Your task to perform on an android device: check the backup settings in the google photos Image 0: 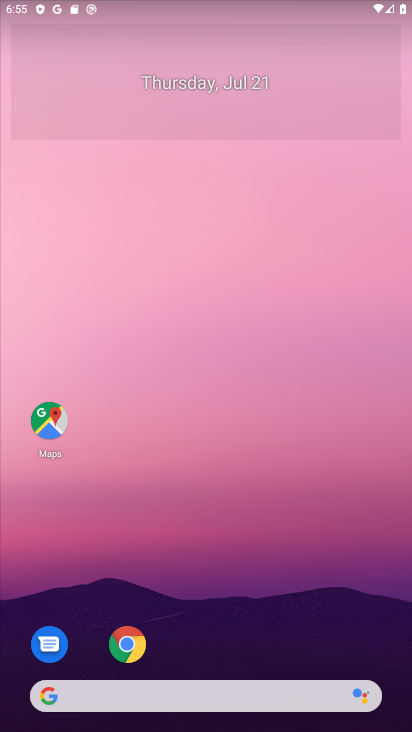
Step 0: drag from (272, 381) to (281, 167)
Your task to perform on an android device: check the backup settings in the google photos Image 1: 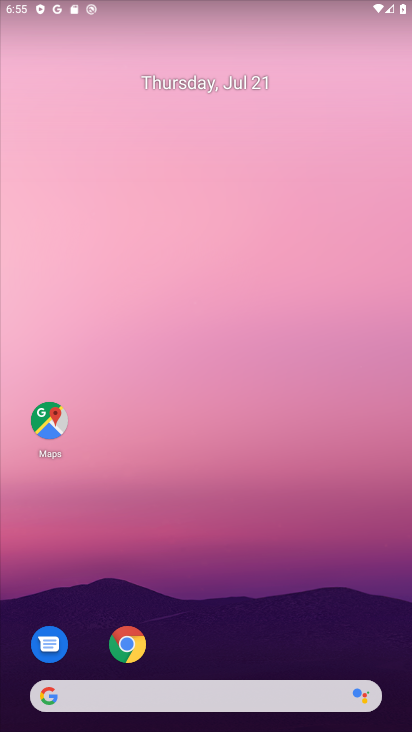
Step 1: drag from (259, 577) to (252, 272)
Your task to perform on an android device: check the backup settings in the google photos Image 2: 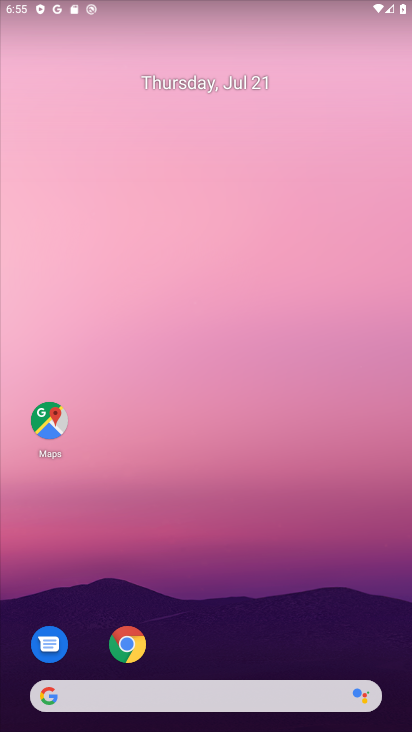
Step 2: drag from (233, 499) to (241, 58)
Your task to perform on an android device: check the backup settings in the google photos Image 3: 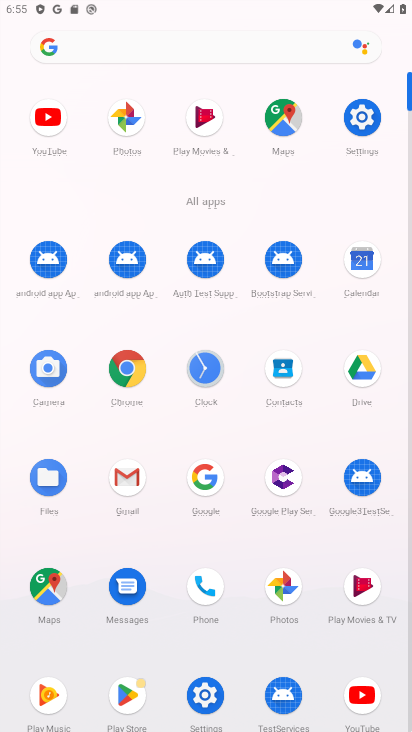
Step 3: click (279, 586)
Your task to perform on an android device: check the backup settings in the google photos Image 4: 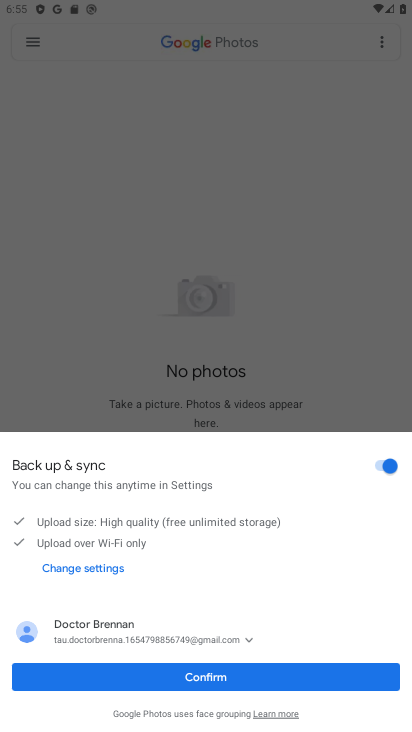
Step 4: click (292, 313)
Your task to perform on an android device: check the backup settings in the google photos Image 5: 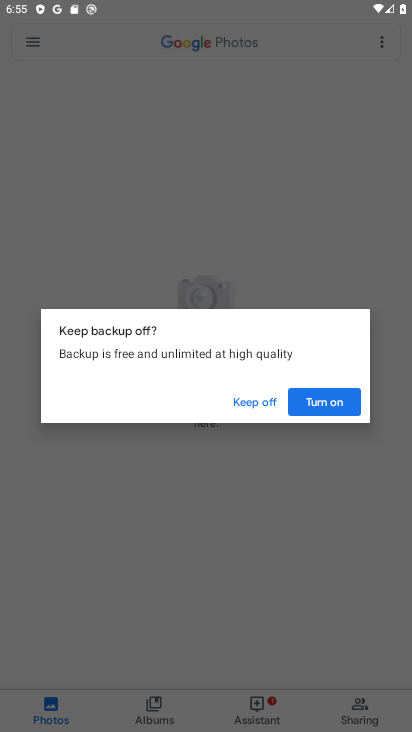
Step 5: click (308, 409)
Your task to perform on an android device: check the backup settings in the google photos Image 6: 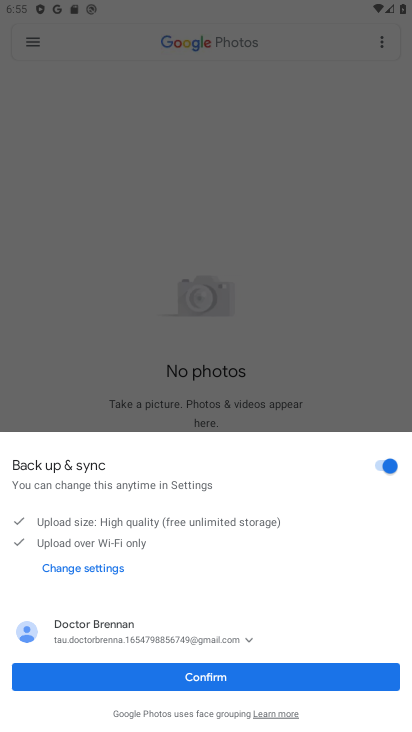
Step 6: click (222, 681)
Your task to perform on an android device: check the backup settings in the google photos Image 7: 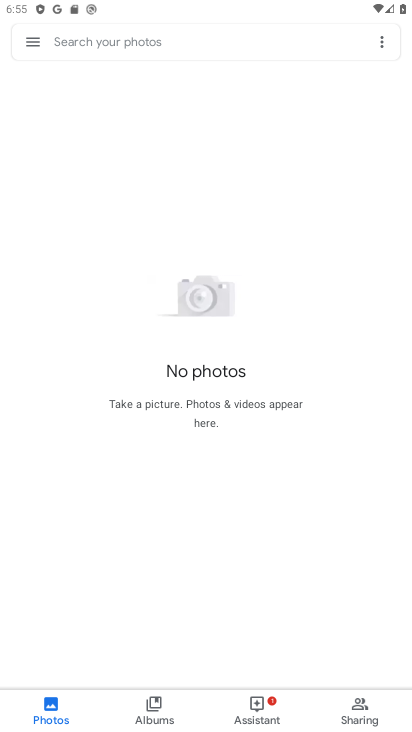
Step 7: click (34, 44)
Your task to perform on an android device: check the backup settings in the google photos Image 8: 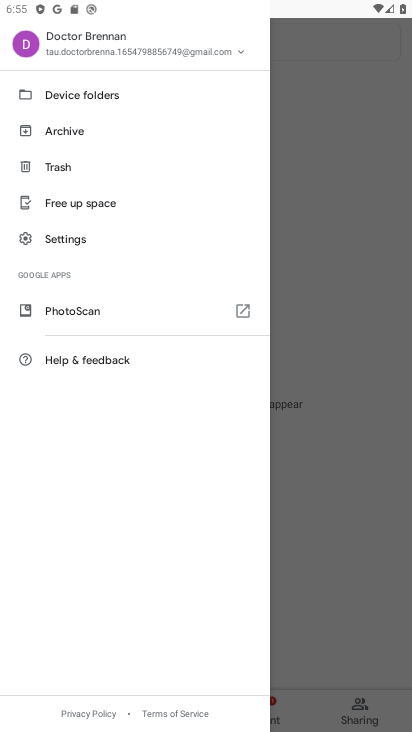
Step 8: task complete